Your task to perform on an android device: Open internet settings Image 0: 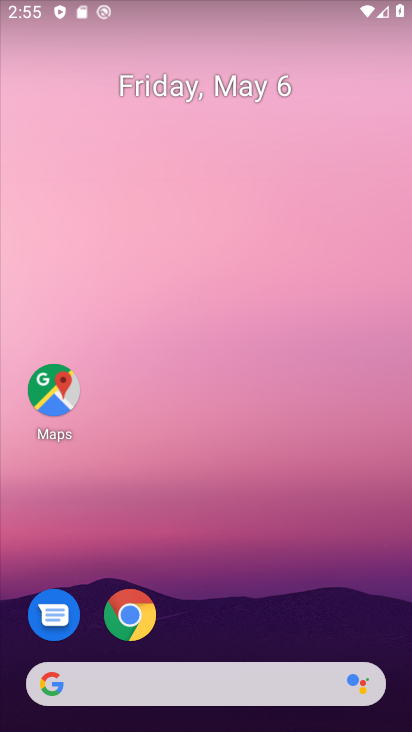
Step 0: drag from (253, 562) to (245, 221)
Your task to perform on an android device: Open internet settings Image 1: 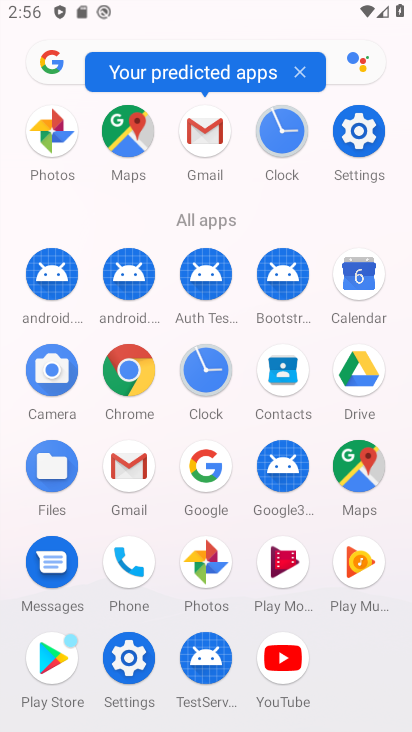
Step 1: click (375, 128)
Your task to perform on an android device: Open internet settings Image 2: 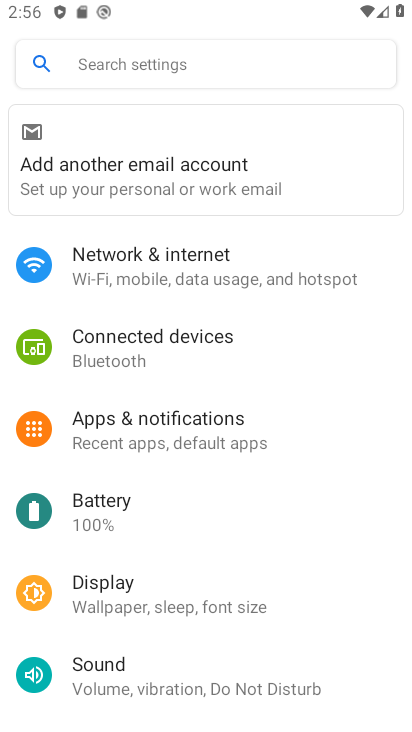
Step 2: click (174, 274)
Your task to perform on an android device: Open internet settings Image 3: 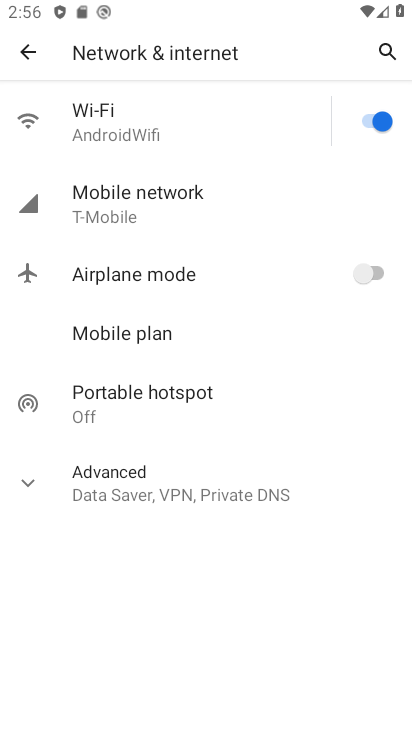
Step 3: click (171, 207)
Your task to perform on an android device: Open internet settings Image 4: 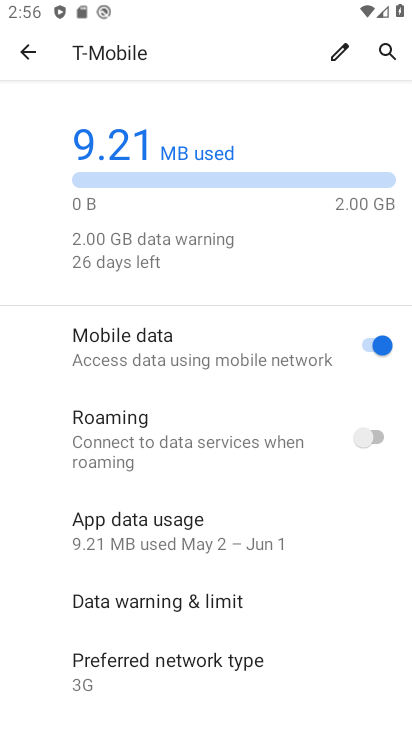
Step 4: drag from (242, 603) to (236, 277)
Your task to perform on an android device: Open internet settings Image 5: 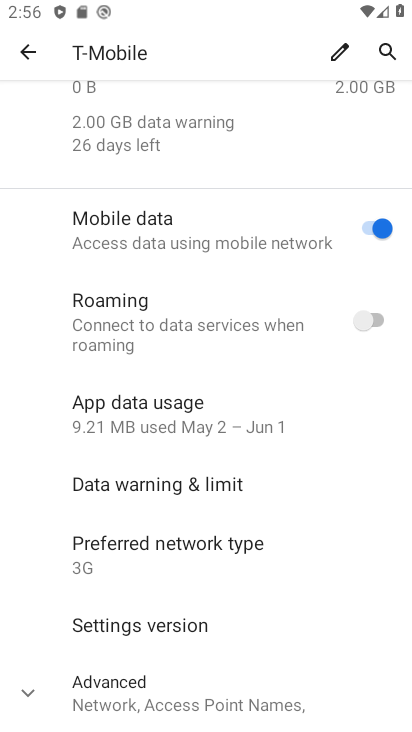
Step 5: click (30, 54)
Your task to perform on an android device: Open internet settings Image 6: 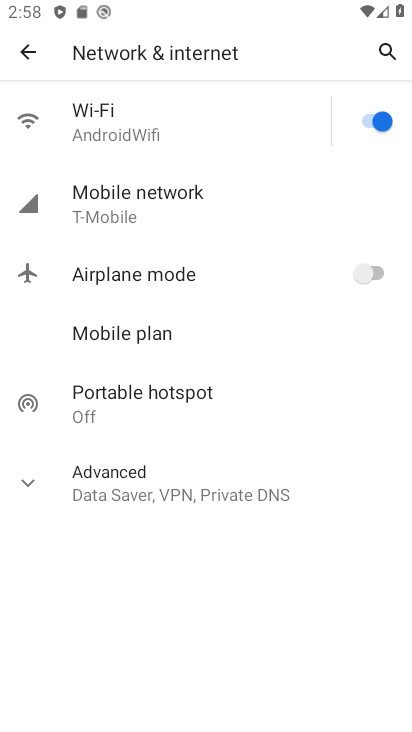
Step 6: task complete